Your task to perform on an android device: open chrome privacy settings Image 0: 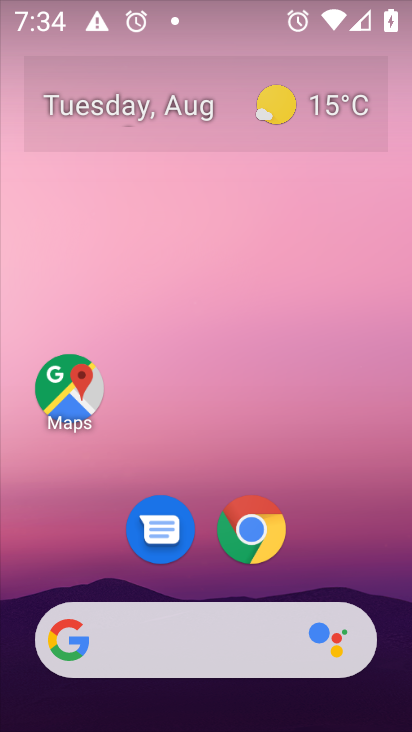
Step 0: press home button
Your task to perform on an android device: open chrome privacy settings Image 1: 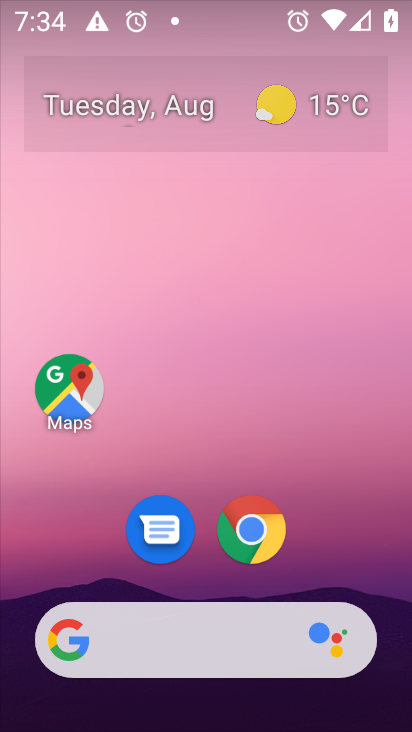
Step 1: click (247, 530)
Your task to perform on an android device: open chrome privacy settings Image 2: 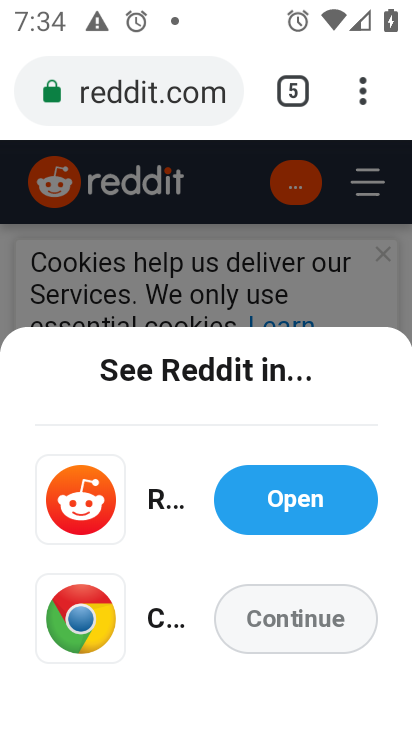
Step 2: click (358, 90)
Your task to perform on an android device: open chrome privacy settings Image 3: 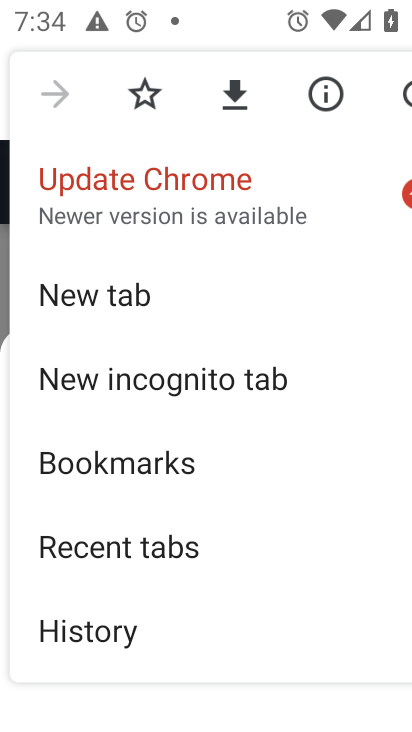
Step 3: drag from (257, 587) to (286, 54)
Your task to perform on an android device: open chrome privacy settings Image 4: 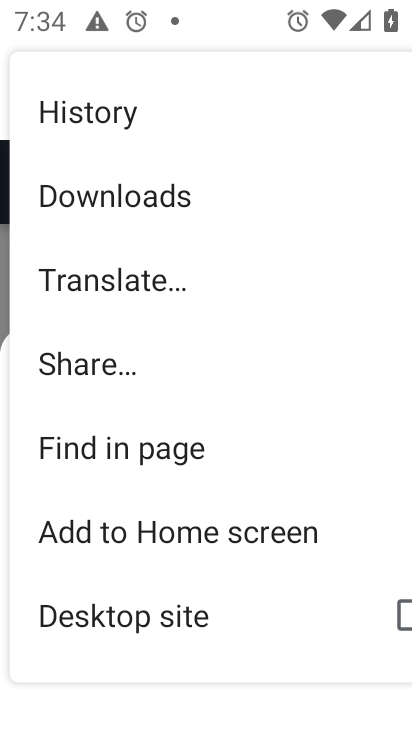
Step 4: drag from (231, 601) to (248, 132)
Your task to perform on an android device: open chrome privacy settings Image 5: 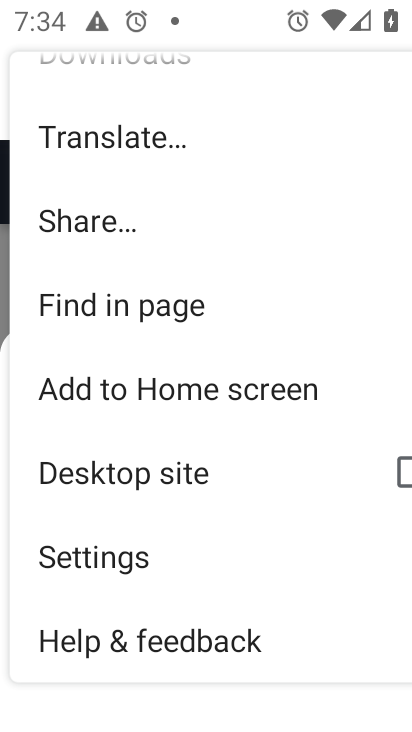
Step 5: click (93, 558)
Your task to perform on an android device: open chrome privacy settings Image 6: 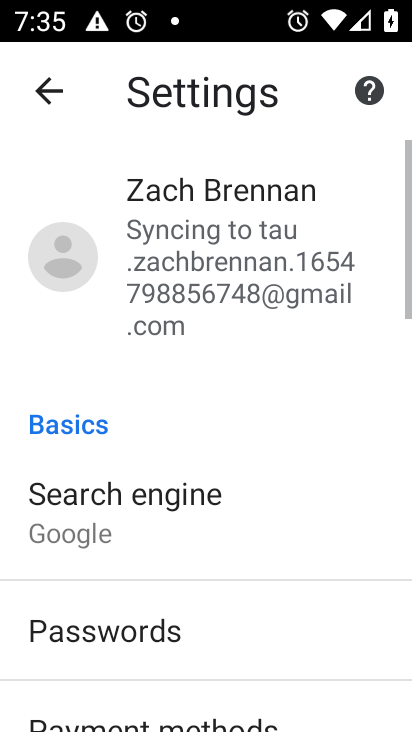
Step 6: drag from (237, 650) to (261, 137)
Your task to perform on an android device: open chrome privacy settings Image 7: 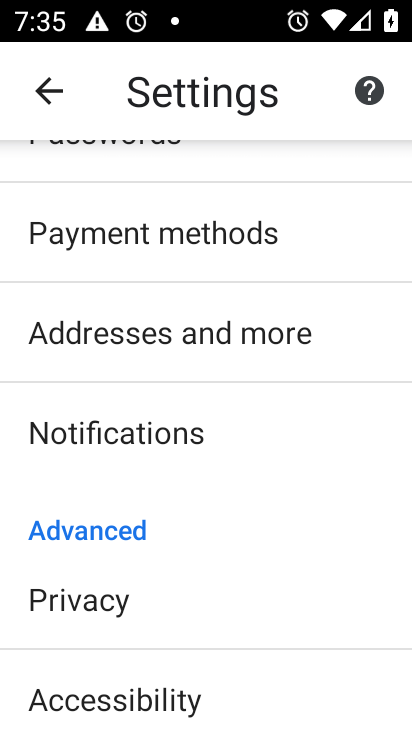
Step 7: click (93, 612)
Your task to perform on an android device: open chrome privacy settings Image 8: 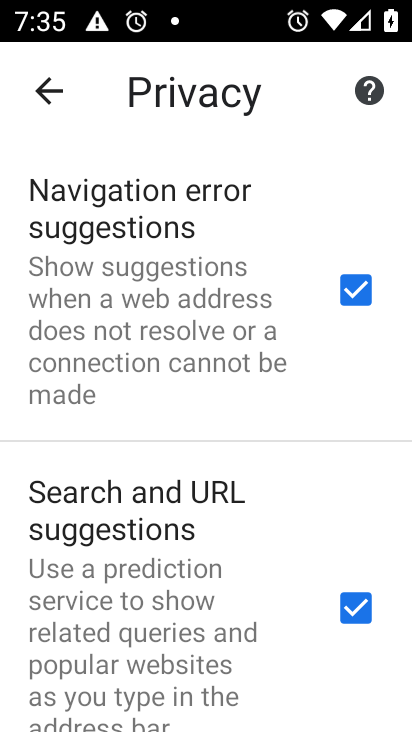
Step 8: task complete